Your task to perform on an android device: What's the weather? Image 0: 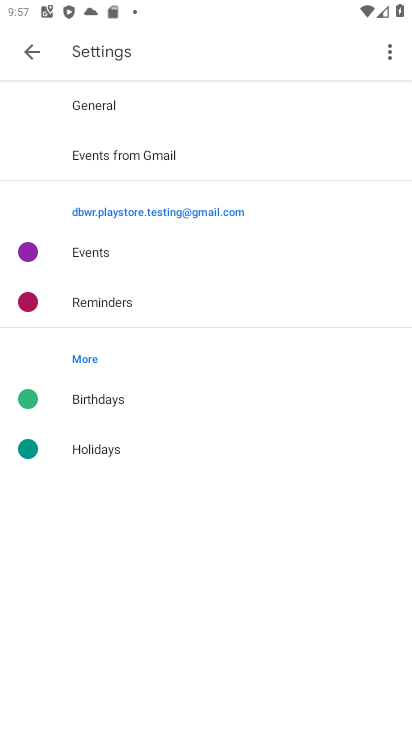
Step 0: press back button
Your task to perform on an android device: What's the weather? Image 1: 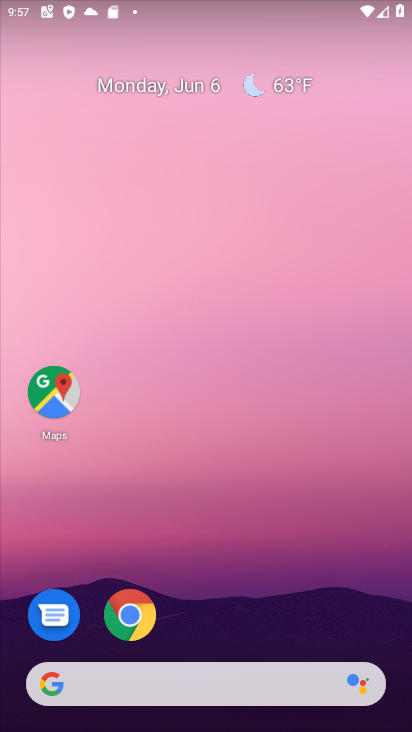
Step 1: click (262, 79)
Your task to perform on an android device: What's the weather? Image 2: 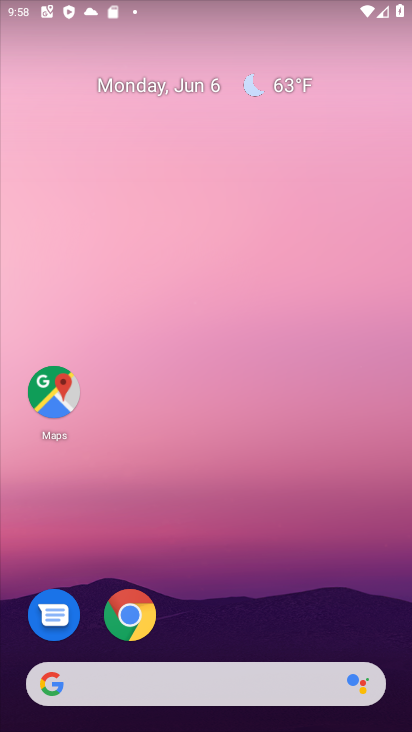
Step 2: click (246, 92)
Your task to perform on an android device: What's the weather? Image 3: 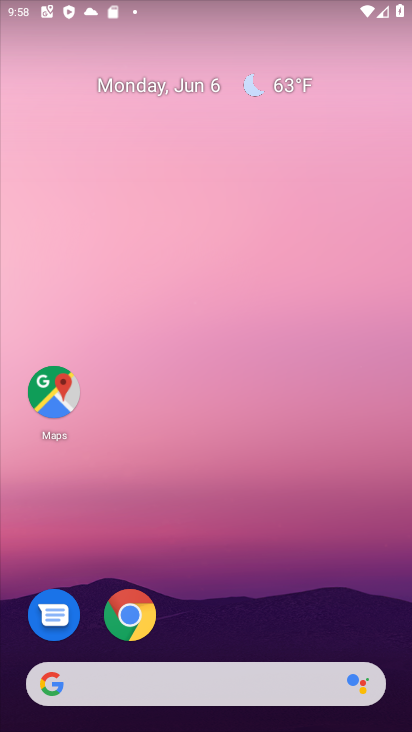
Step 3: click (254, 81)
Your task to perform on an android device: What's the weather? Image 4: 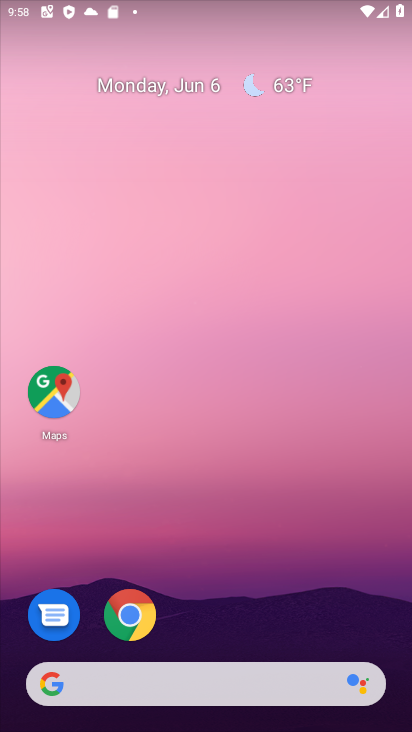
Step 4: click (144, 672)
Your task to perform on an android device: What's the weather? Image 5: 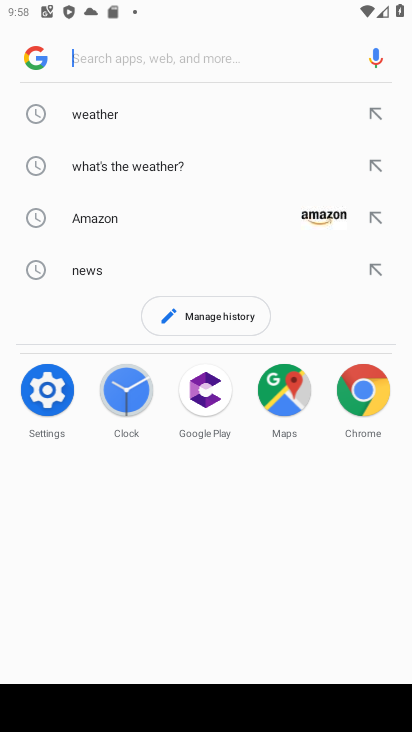
Step 5: click (116, 116)
Your task to perform on an android device: What's the weather? Image 6: 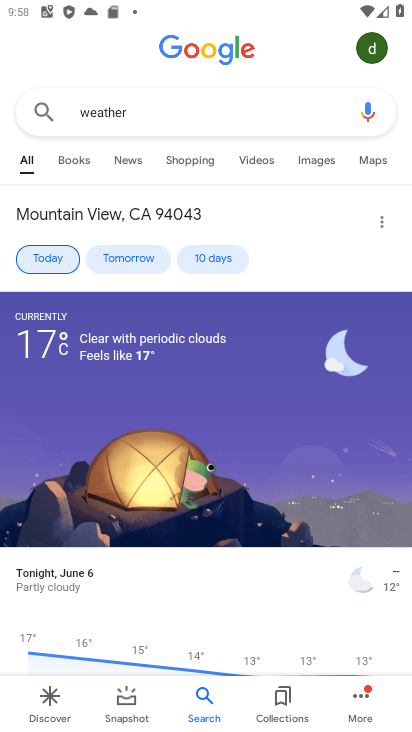
Step 6: task complete